Your task to perform on an android device: Go to Android settings Image 0: 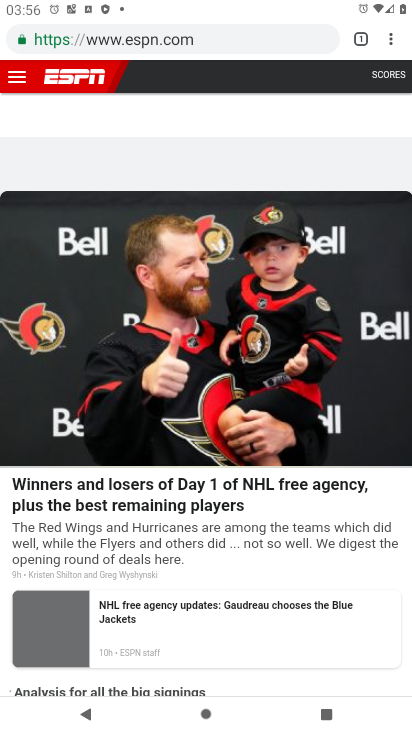
Step 0: press home button
Your task to perform on an android device: Go to Android settings Image 1: 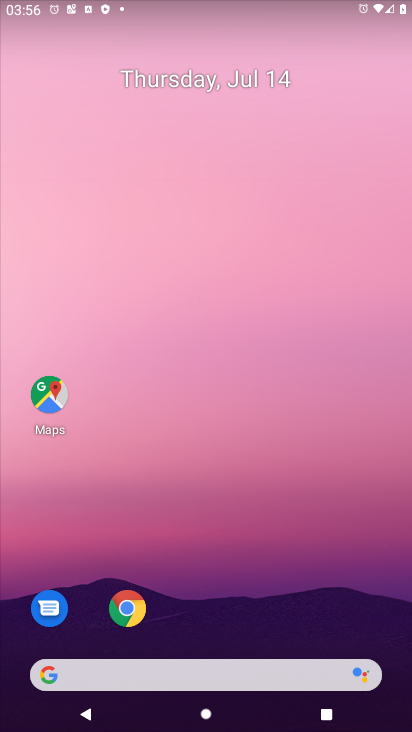
Step 1: drag from (393, 640) to (349, 106)
Your task to perform on an android device: Go to Android settings Image 2: 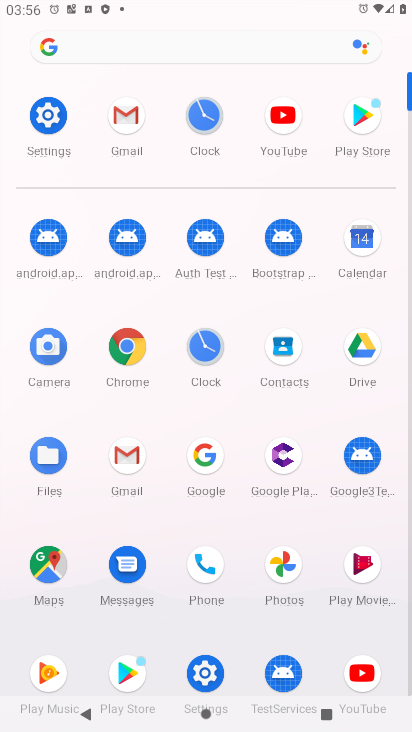
Step 2: click (206, 670)
Your task to perform on an android device: Go to Android settings Image 3: 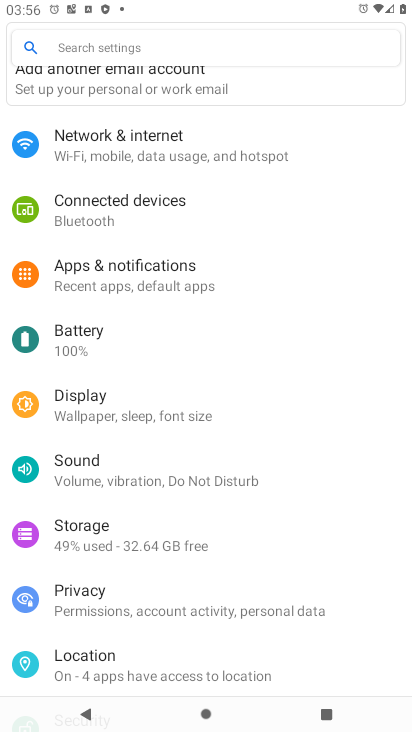
Step 3: drag from (354, 620) to (357, 247)
Your task to perform on an android device: Go to Android settings Image 4: 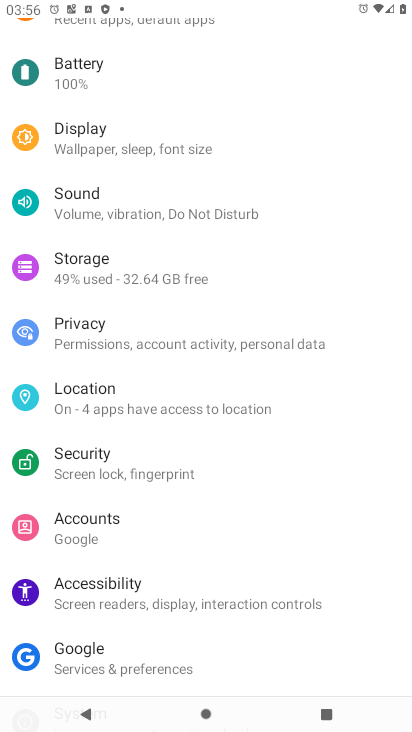
Step 4: drag from (316, 657) to (310, 112)
Your task to perform on an android device: Go to Android settings Image 5: 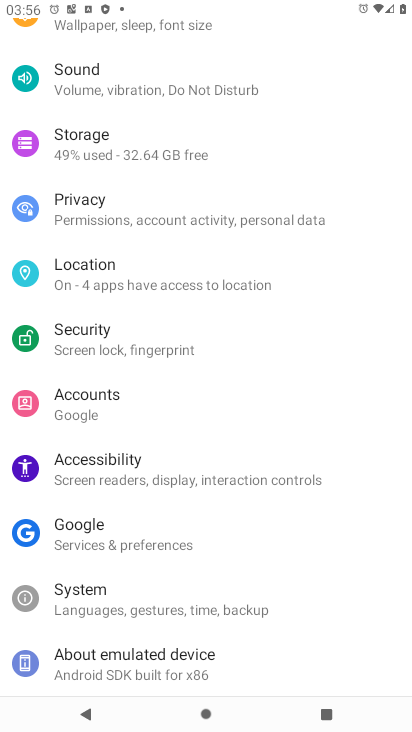
Step 5: click (115, 663)
Your task to perform on an android device: Go to Android settings Image 6: 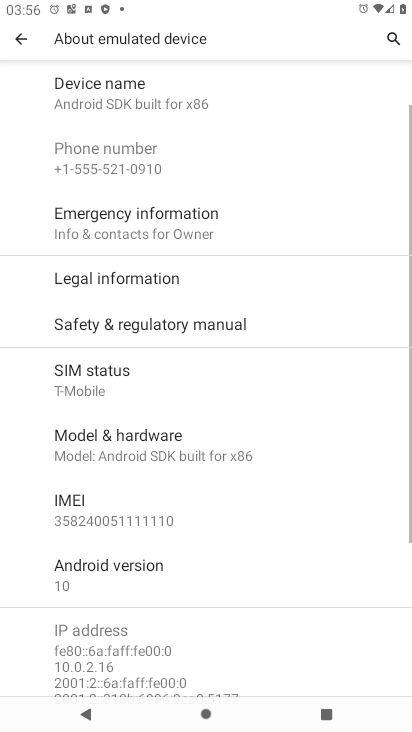
Step 6: task complete